Your task to perform on an android device: Open Reddit.com Image 0: 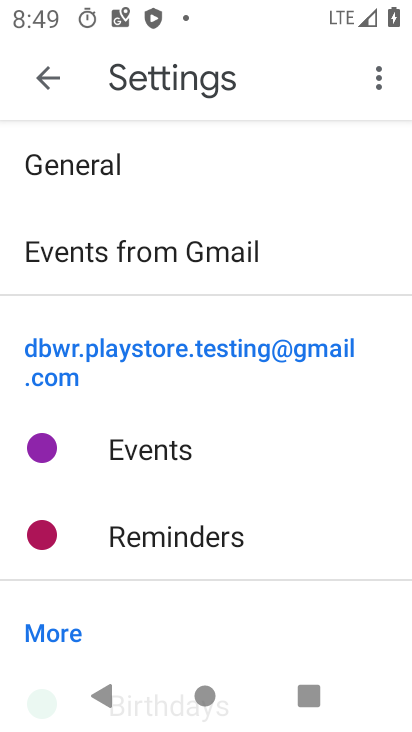
Step 0: press home button
Your task to perform on an android device: Open Reddit.com Image 1: 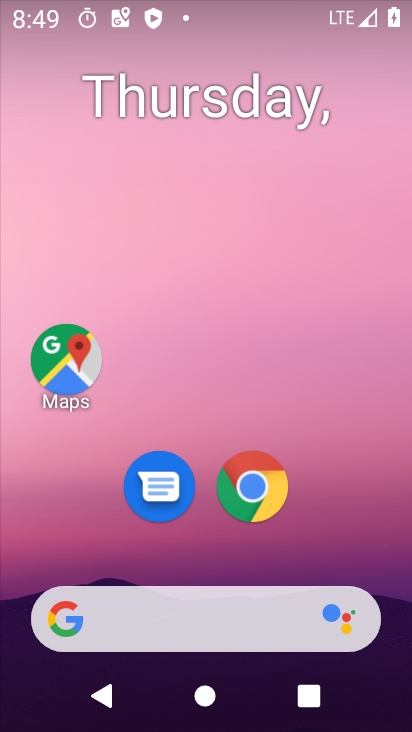
Step 1: drag from (230, 562) to (296, 73)
Your task to perform on an android device: Open Reddit.com Image 2: 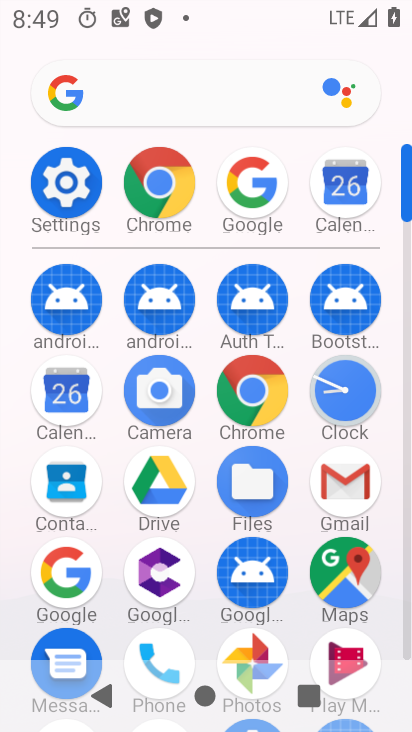
Step 2: click (166, 191)
Your task to perform on an android device: Open Reddit.com Image 3: 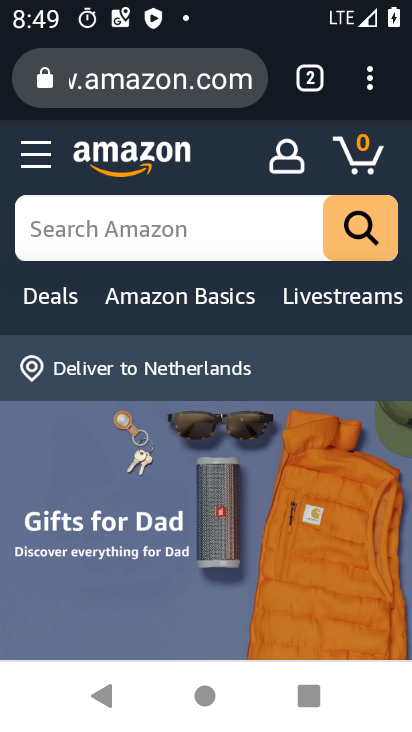
Step 3: click (192, 74)
Your task to perform on an android device: Open Reddit.com Image 4: 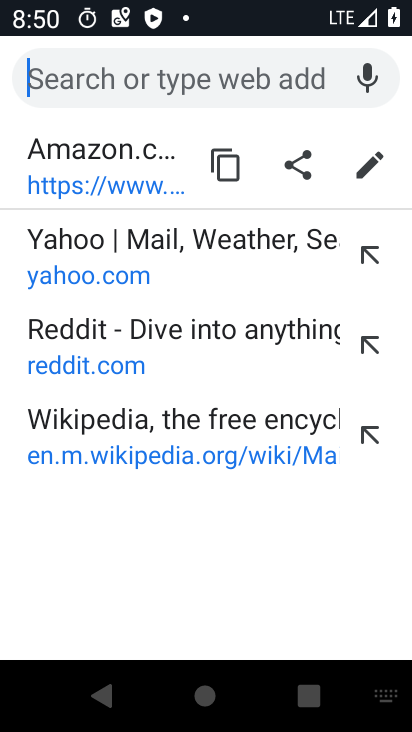
Step 4: click (124, 341)
Your task to perform on an android device: Open Reddit.com Image 5: 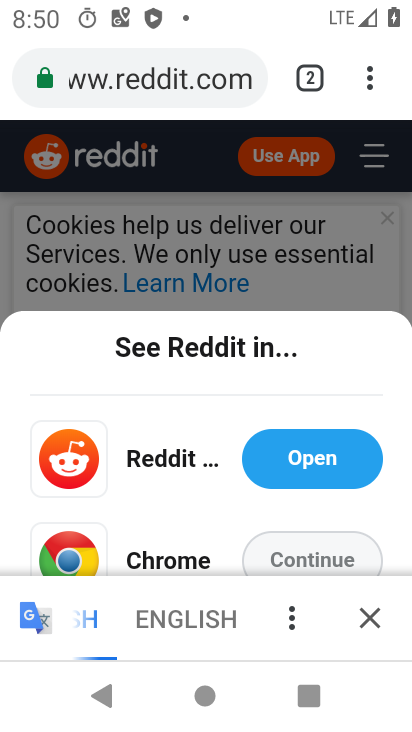
Step 5: task complete